Your task to perform on an android device: Go to Android settings Image 0: 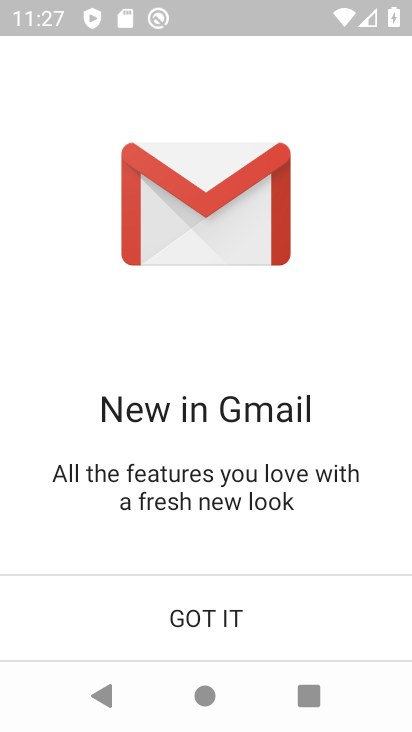
Step 0: press home button
Your task to perform on an android device: Go to Android settings Image 1: 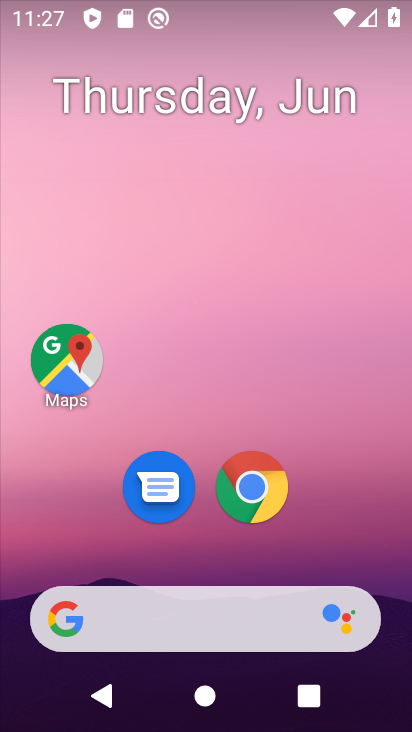
Step 1: drag from (193, 615) to (253, 75)
Your task to perform on an android device: Go to Android settings Image 2: 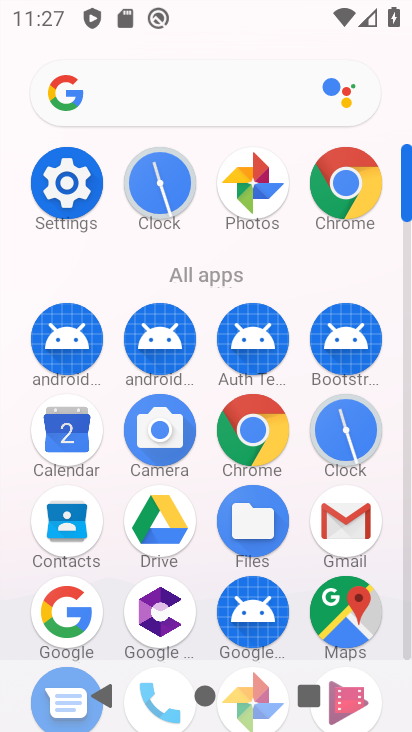
Step 2: drag from (168, 533) to (192, 358)
Your task to perform on an android device: Go to Android settings Image 3: 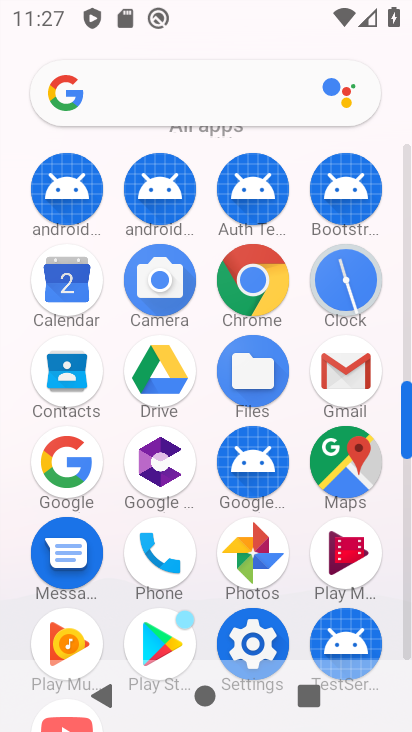
Step 3: click (244, 651)
Your task to perform on an android device: Go to Android settings Image 4: 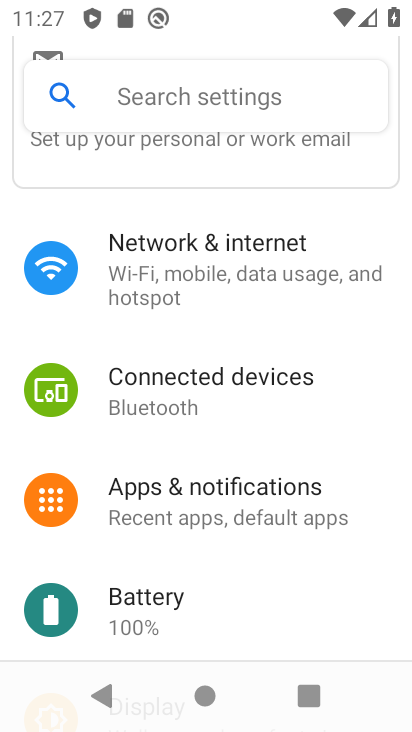
Step 4: task complete